Your task to perform on an android device: turn off data saver in the chrome app Image 0: 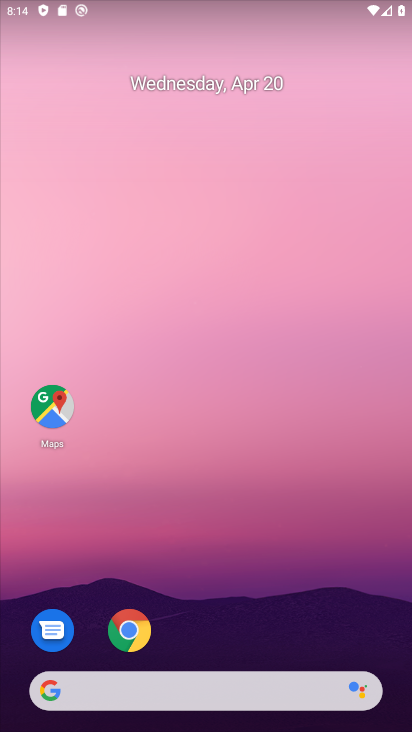
Step 0: click (138, 627)
Your task to perform on an android device: turn off data saver in the chrome app Image 1: 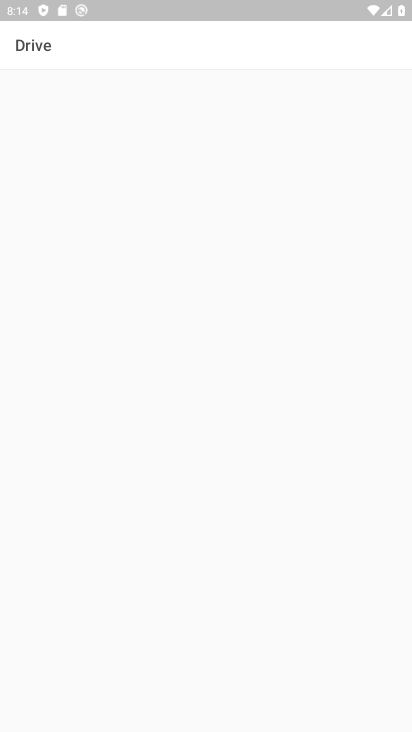
Step 1: press home button
Your task to perform on an android device: turn off data saver in the chrome app Image 2: 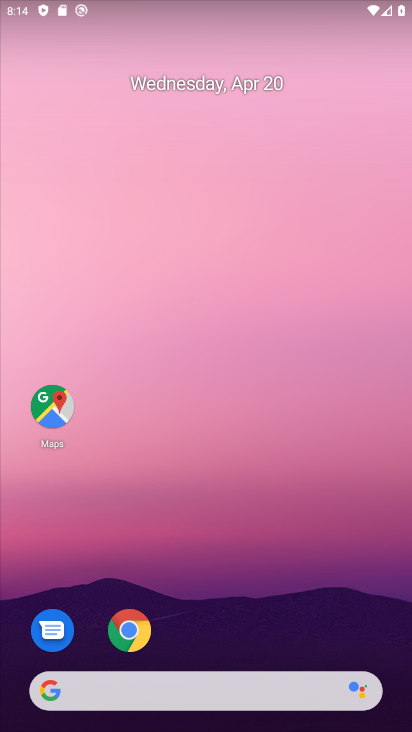
Step 2: click (128, 628)
Your task to perform on an android device: turn off data saver in the chrome app Image 3: 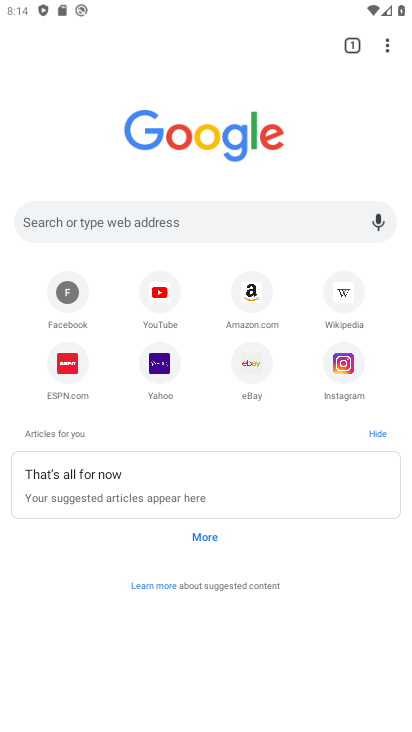
Step 3: click (393, 44)
Your task to perform on an android device: turn off data saver in the chrome app Image 4: 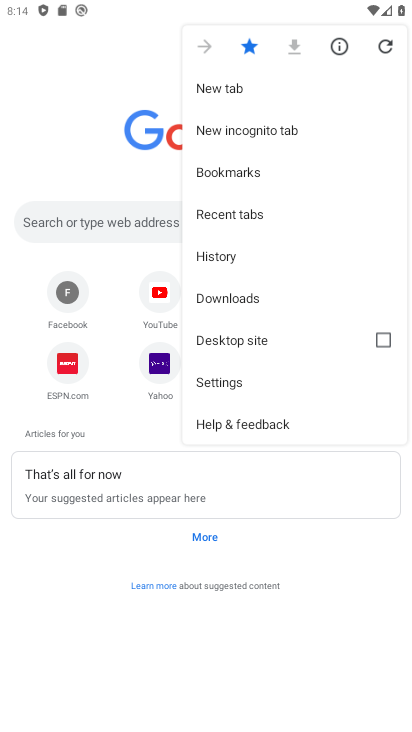
Step 4: click (237, 375)
Your task to perform on an android device: turn off data saver in the chrome app Image 5: 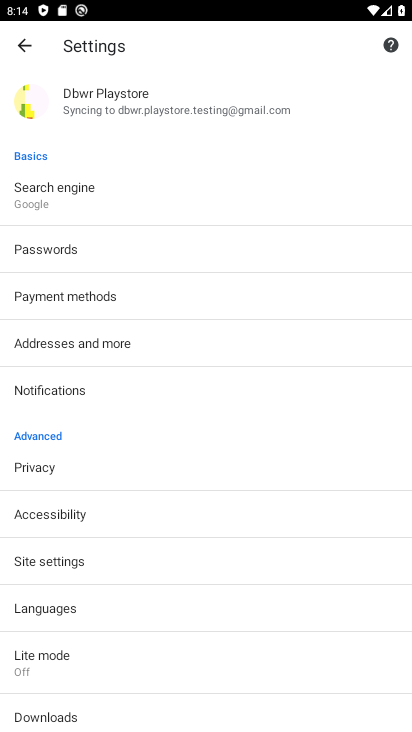
Step 5: click (33, 664)
Your task to perform on an android device: turn off data saver in the chrome app Image 6: 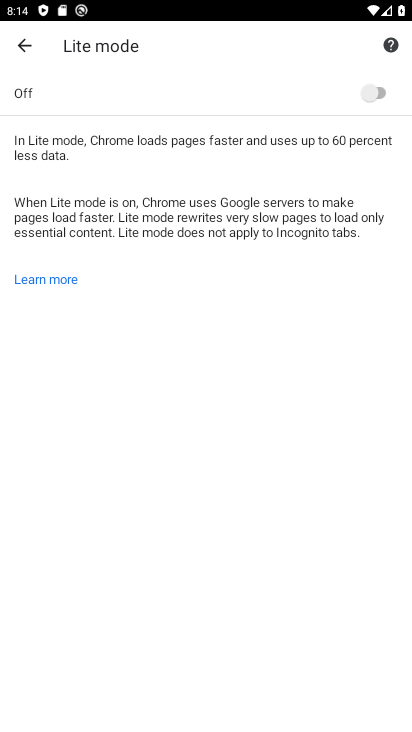
Step 6: task complete